Your task to perform on an android device: clear history in the chrome app Image 0: 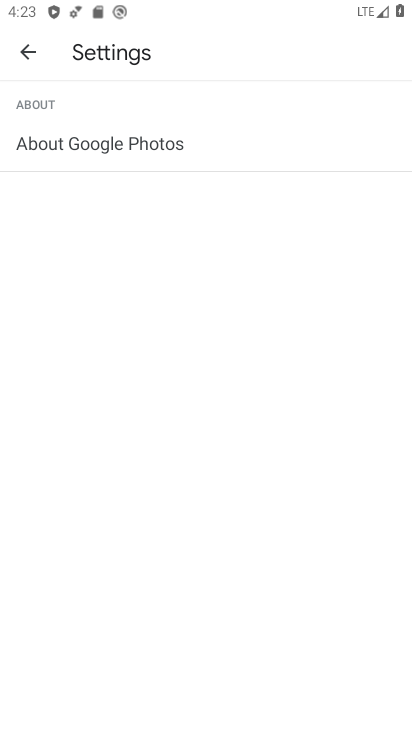
Step 0: press back button
Your task to perform on an android device: clear history in the chrome app Image 1: 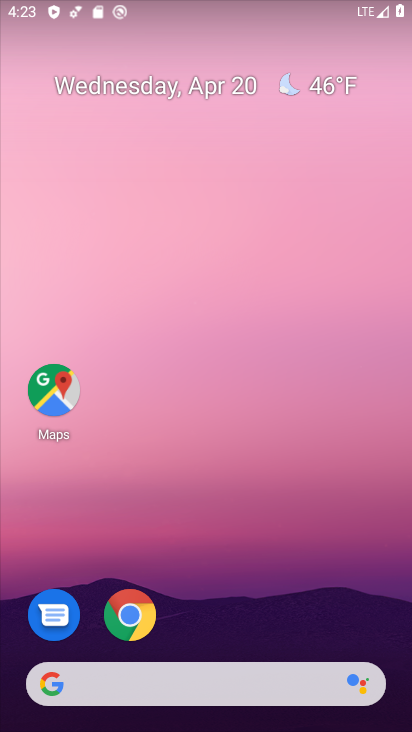
Step 1: click (114, 611)
Your task to perform on an android device: clear history in the chrome app Image 2: 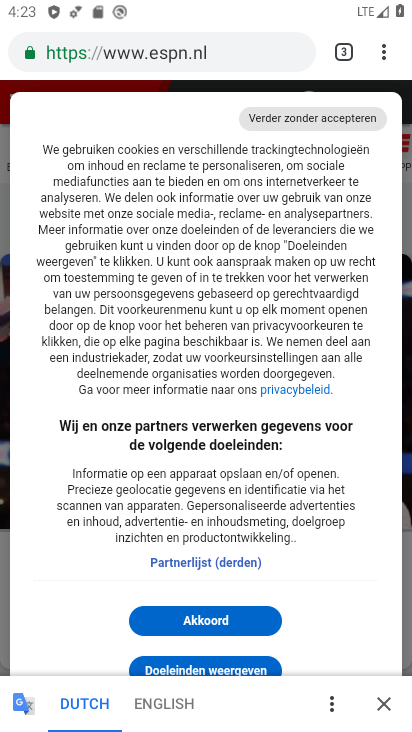
Step 2: drag from (385, 51) to (226, 354)
Your task to perform on an android device: clear history in the chrome app Image 3: 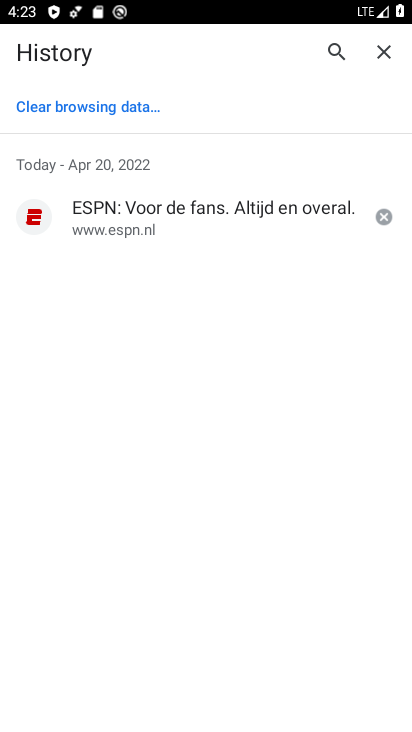
Step 3: click (99, 103)
Your task to perform on an android device: clear history in the chrome app Image 4: 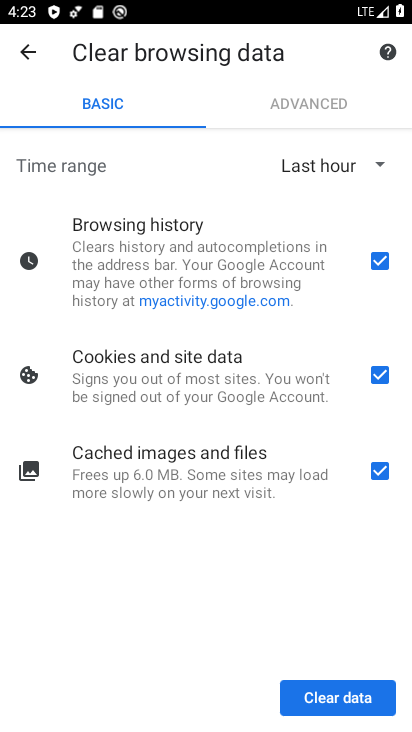
Step 4: click (383, 378)
Your task to perform on an android device: clear history in the chrome app Image 5: 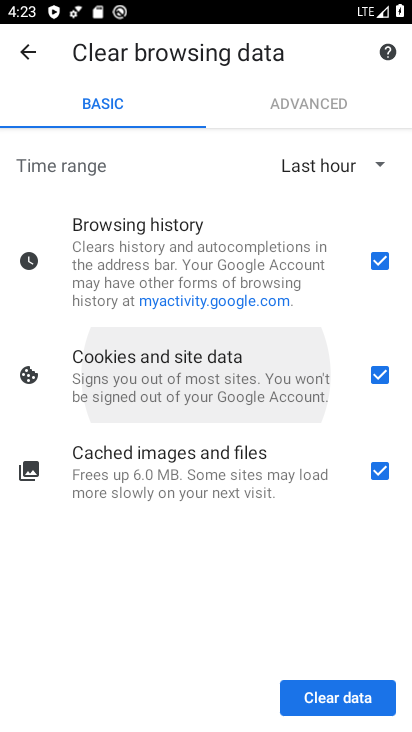
Step 5: click (379, 482)
Your task to perform on an android device: clear history in the chrome app Image 6: 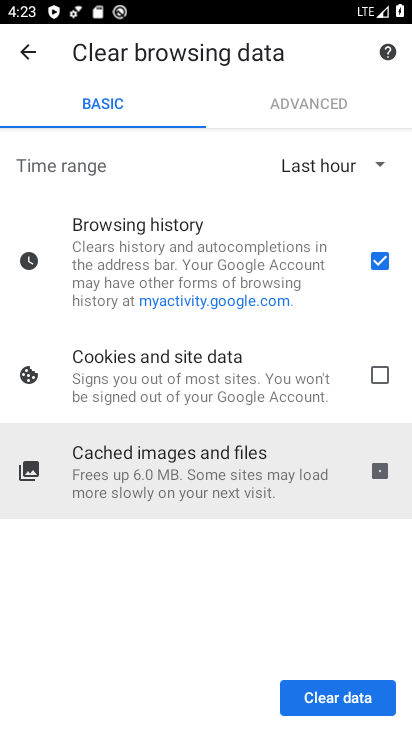
Step 6: click (322, 692)
Your task to perform on an android device: clear history in the chrome app Image 7: 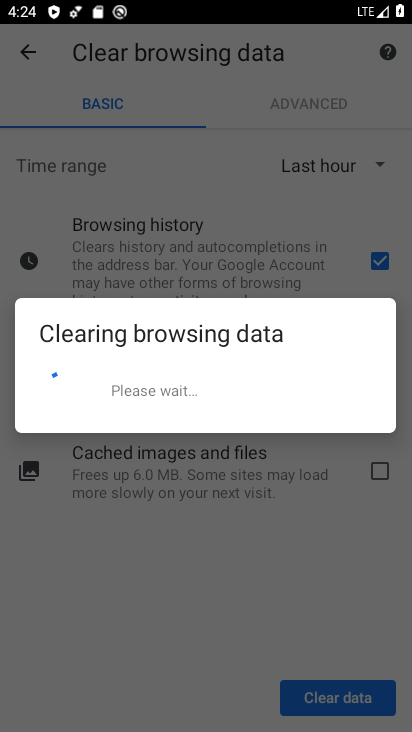
Step 7: click (180, 522)
Your task to perform on an android device: clear history in the chrome app Image 8: 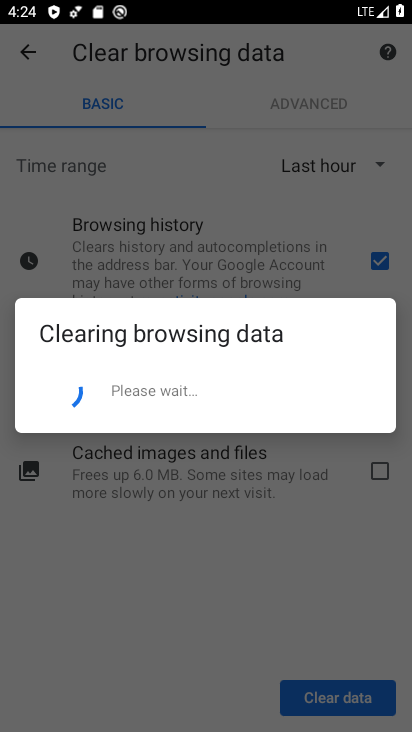
Step 8: click (198, 434)
Your task to perform on an android device: clear history in the chrome app Image 9: 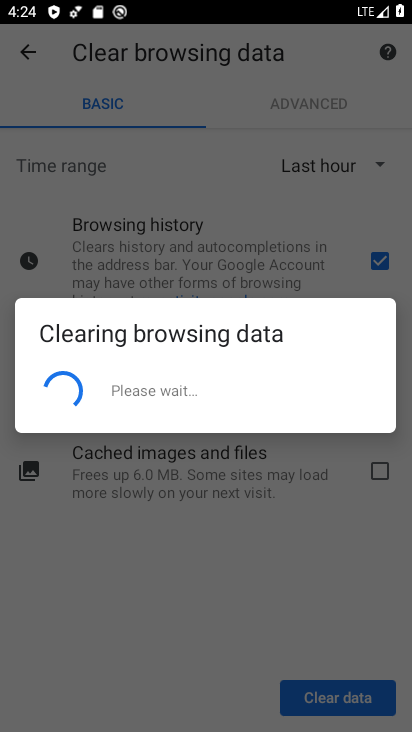
Step 9: click (189, 469)
Your task to perform on an android device: clear history in the chrome app Image 10: 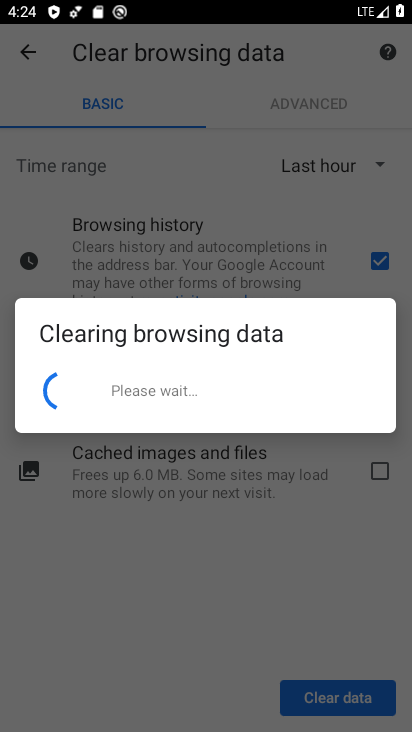
Step 10: click (194, 468)
Your task to perform on an android device: clear history in the chrome app Image 11: 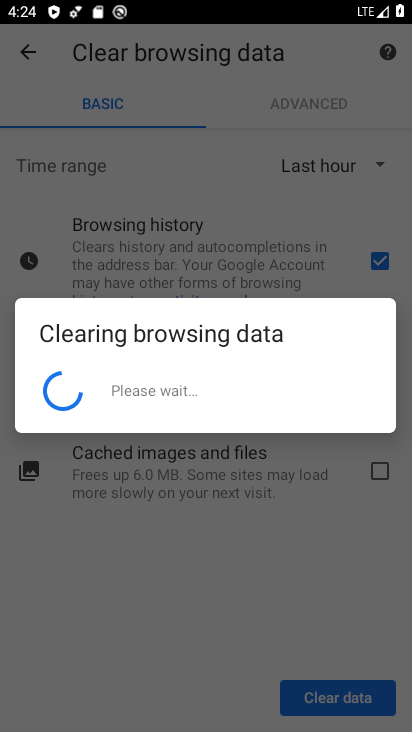
Step 11: task complete